Your task to perform on an android device: Go to Amazon Image 0: 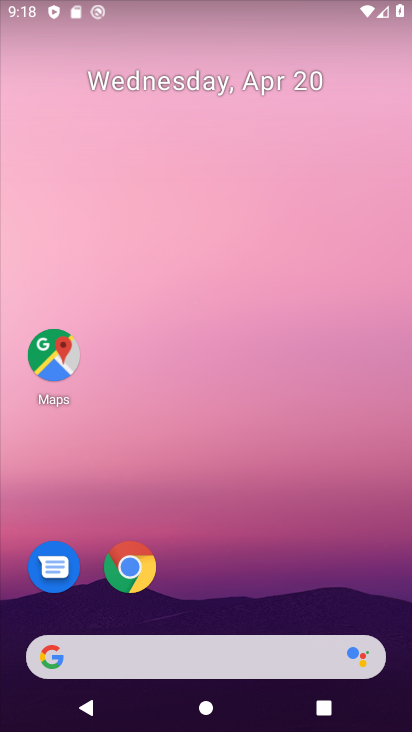
Step 0: drag from (340, 572) to (356, 144)
Your task to perform on an android device: Go to Amazon Image 1: 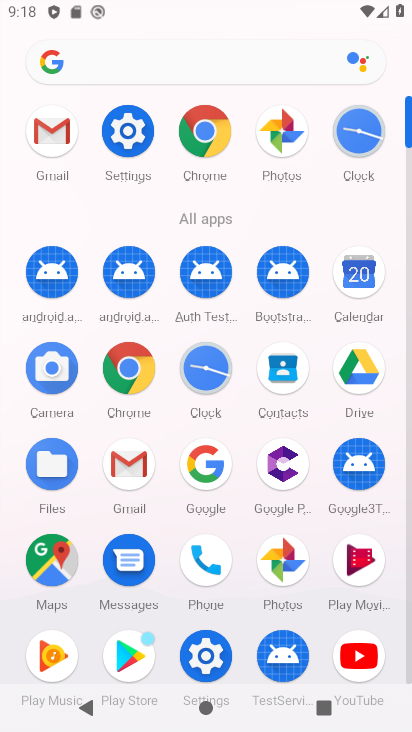
Step 1: click (144, 381)
Your task to perform on an android device: Go to Amazon Image 2: 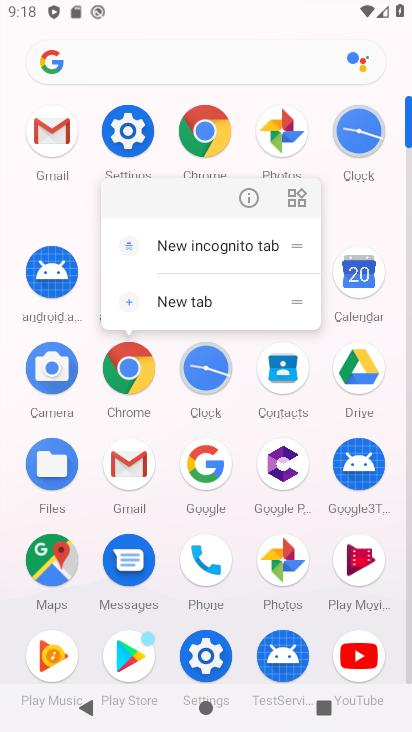
Step 2: click (144, 381)
Your task to perform on an android device: Go to Amazon Image 3: 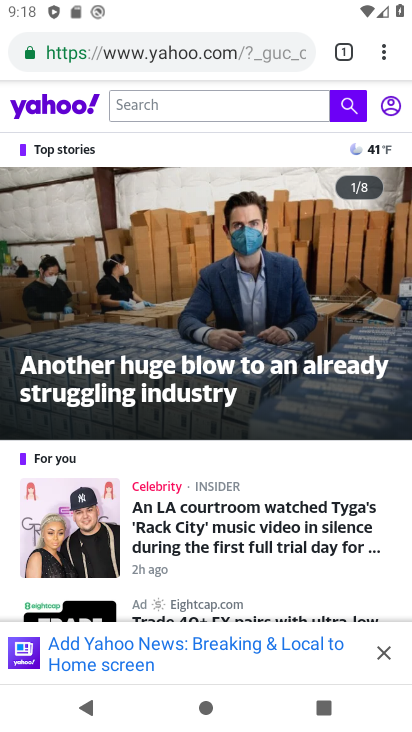
Step 3: press back button
Your task to perform on an android device: Go to Amazon Image 4: 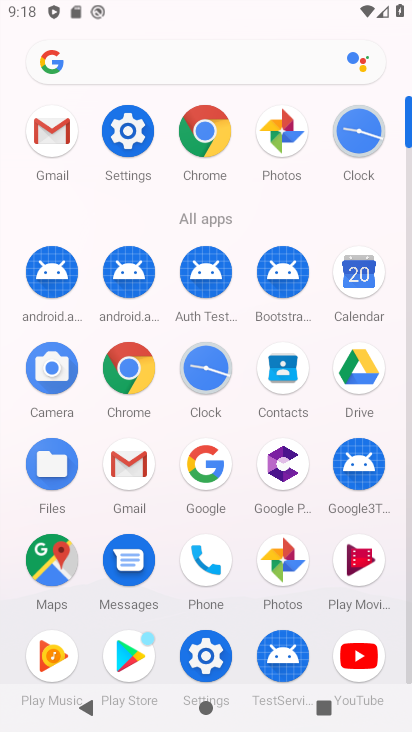
Step 4: click (225, 146)
Your task to perform on an android device: Go to Amazon Image 5: 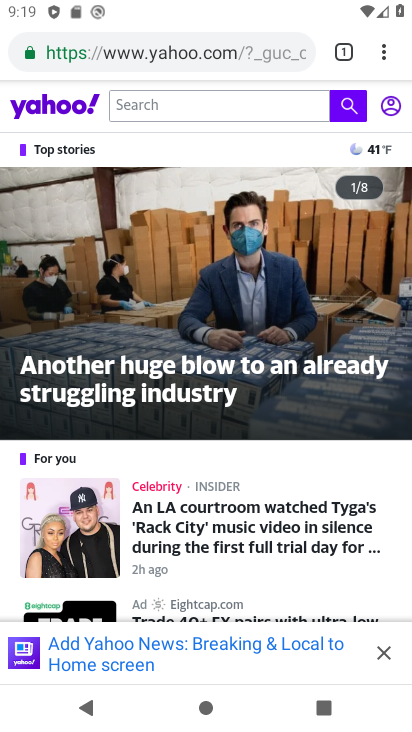
Step 5: click (236, 51)
Your task to perform on an android device: Go to Amazon Image 6: 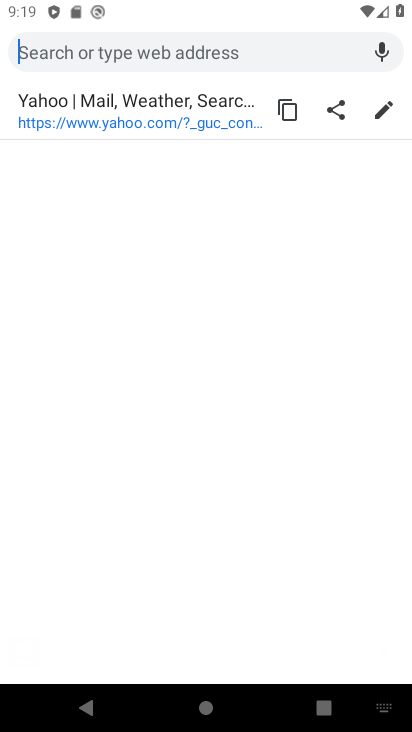
Step 6: type "Amazon"
Your task to perform on an android device: Go to Amazon Image 7: 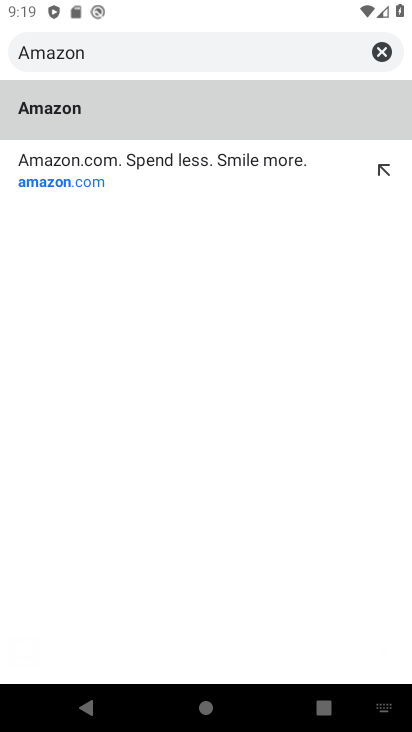
Step 7: click (317, 126)
Your task to perform on an android device: Go to Amazon Image 8: 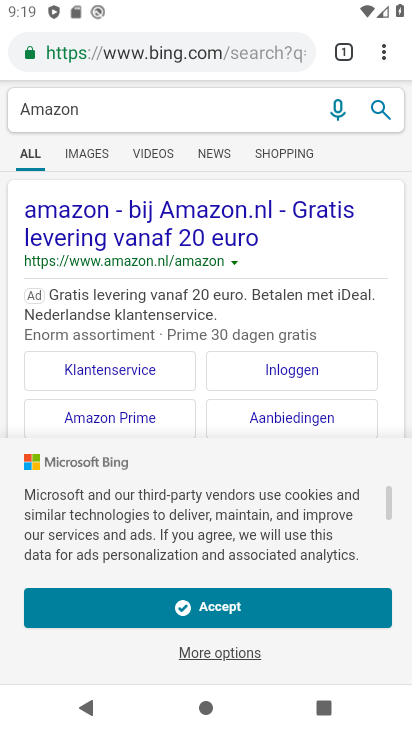
Step 8: click (211, 223)
Your task to perform on an android device: Go to Amazon Image 9: 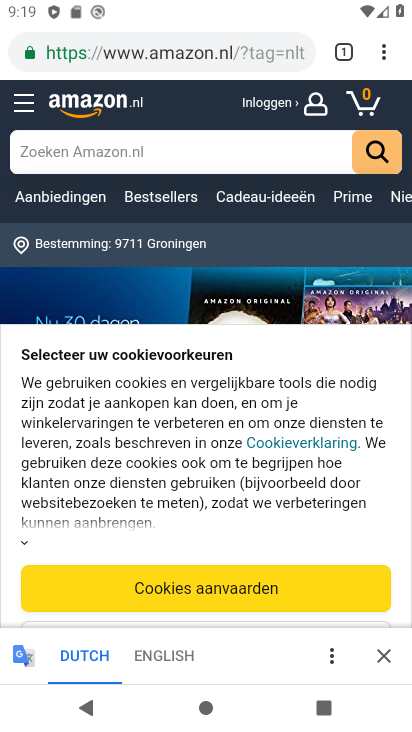
Step 9: task complete